Your task to perform on an android device: Go to Yahoo.com Image 0: 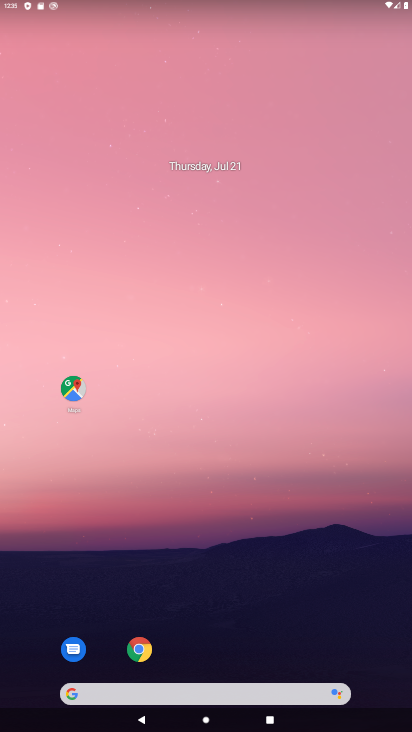
Step 0: click (147, 648)
Your task to perform on an android device: Go to Yahoo.com Image 1: 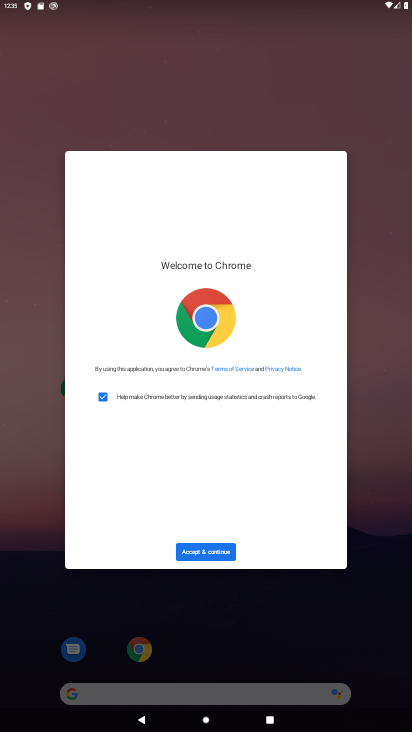
Step 1: click (224, 543)
Your task to perform on an android device: Go to Yahoo.com Image 2: 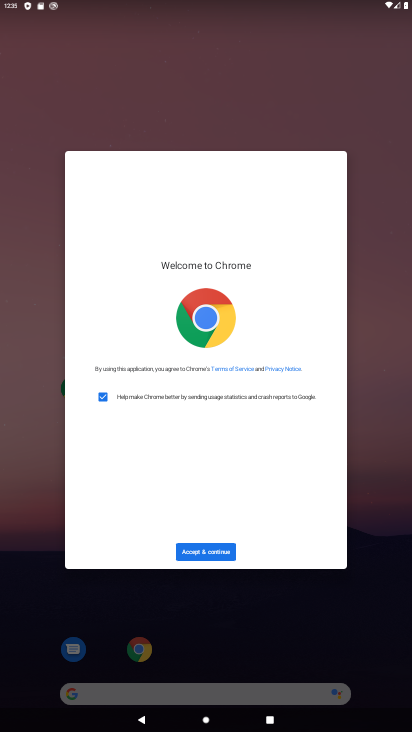
Step 2: click (212, 552)
Your task to perform on an android device: Go to Yahoo.com Image 3: 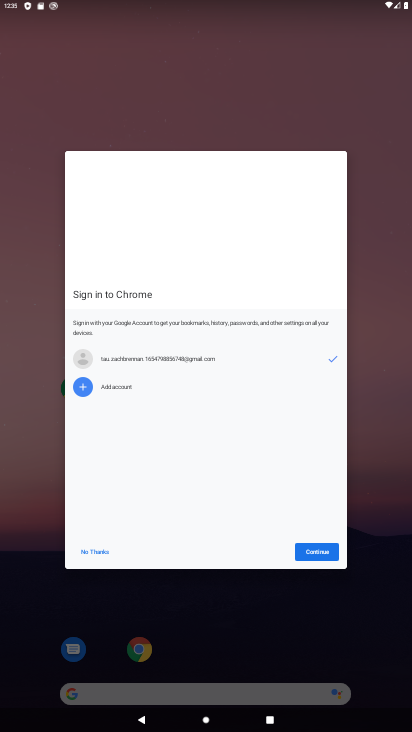
Step 3: click (311, 551)
Your task to perform on an android device: Go to Yahoo.com Image 4: 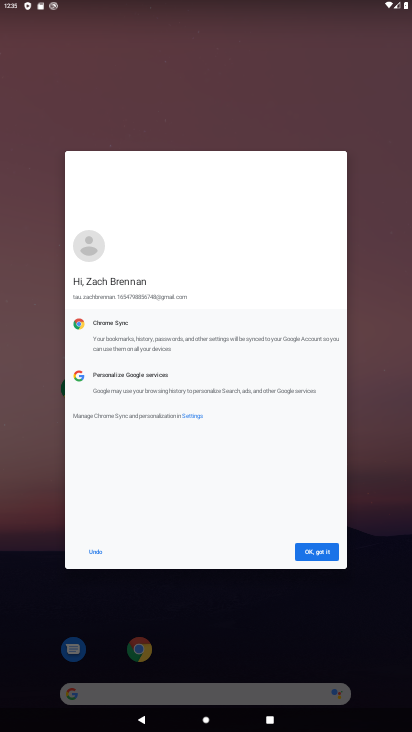
Step 4: click (311, 551)
Your task to perform on an android device: Go to Yahoo.com Image 5: 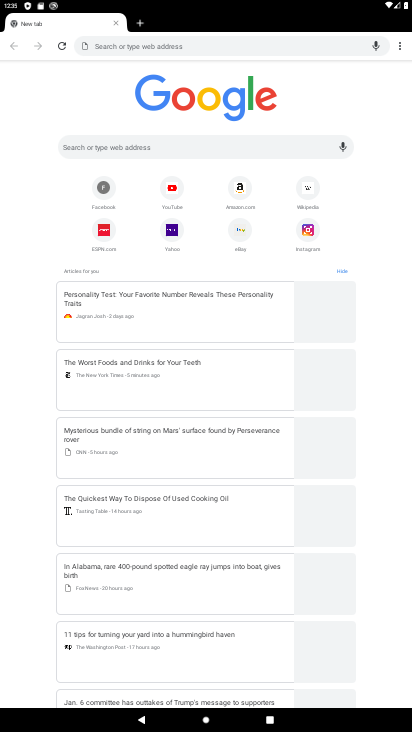
Step 5: click (178, 237)
Your task to perform on an android device: Go to Yahoo.com Image 6: 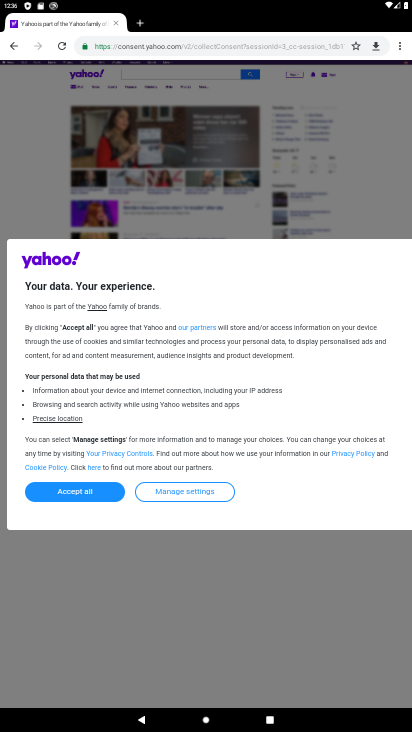
Step 6: task complete